Your task to perform on an android device: all mails in gmail Image 0: 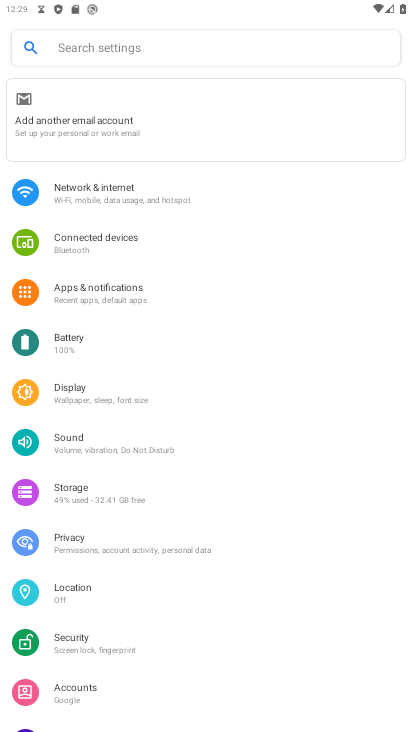
Step 0: press home button
Your task to perform on an android device: all mails in gmail Image 1: 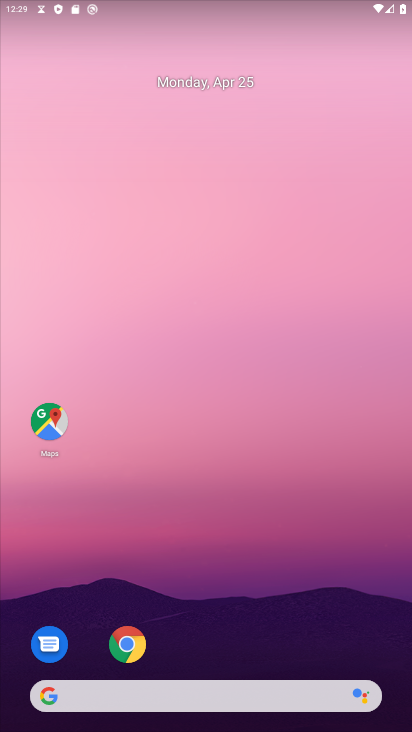
Step 1: drag from (341, 653) to (351, 20)
Your task to perform on an android device: all mails in gmail Image 2: 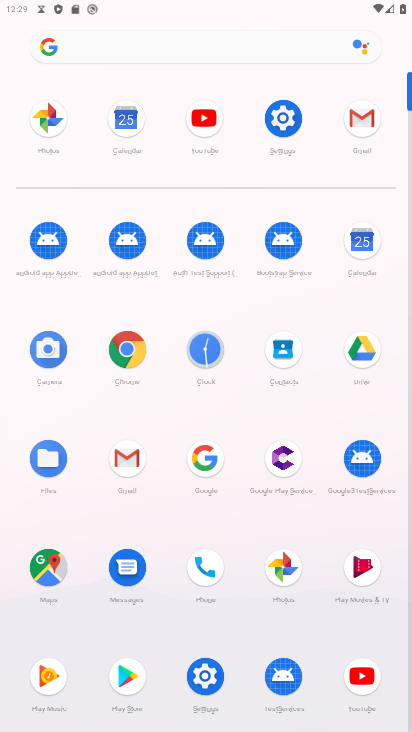
Step 2: click (364, 120)
Your task to perform on an android device: all mails in gmail Image 3: 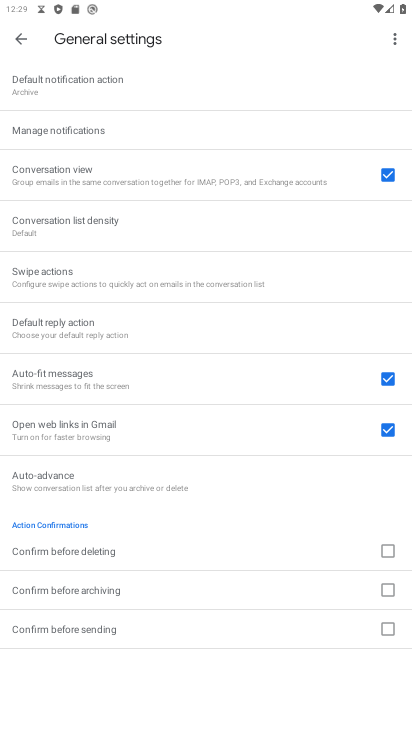
Step 3: click (18, 42)
Your task to perform on an android device: all mails in gmail Image 4: 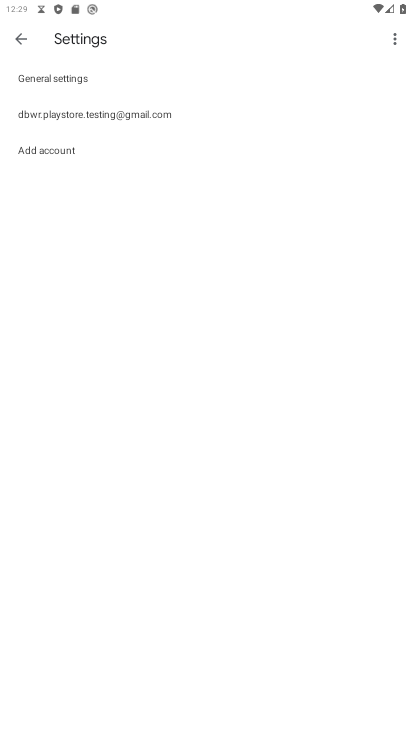
Step 4: click (18, 42)
Your task to perform on an android device: all mails in gmail Image 5: 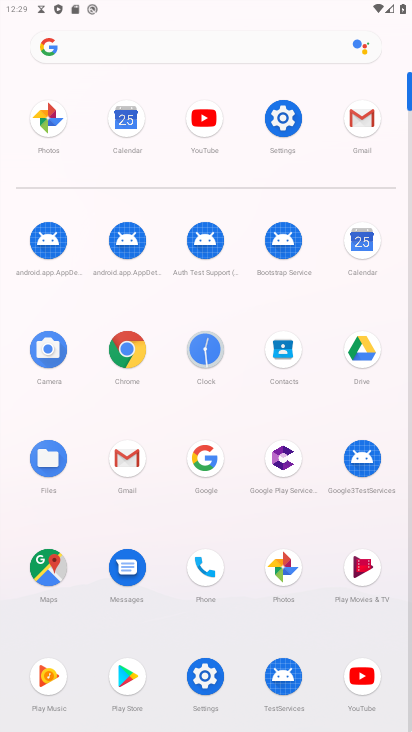
Step 5: click (364, 115)
Your task to perform on an android device: all mails in gmail Image 6: 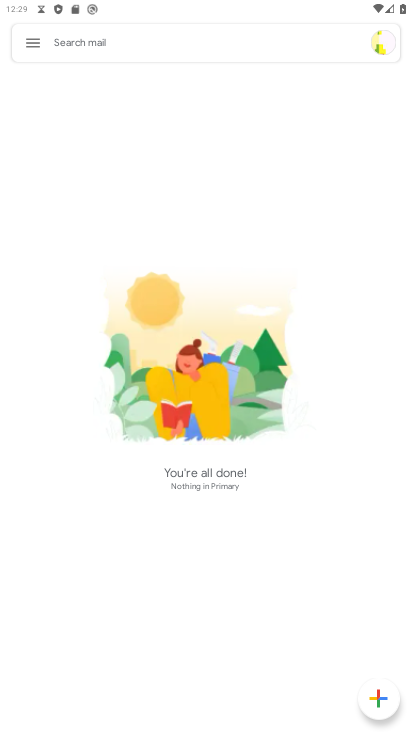
Step 6: click (34, 37)
Your task to perform on an android device: all mails in gmail Image 7: 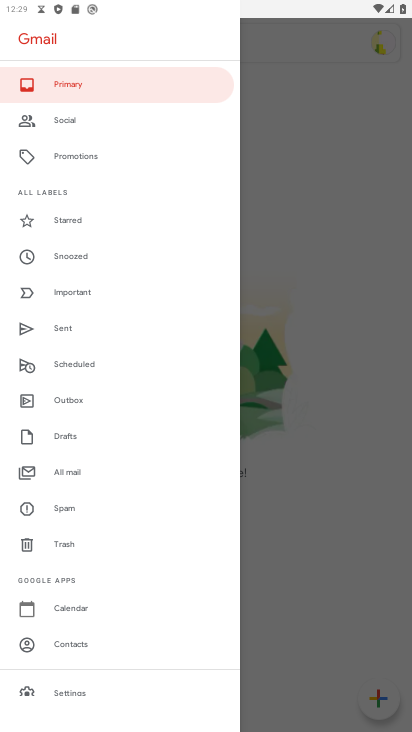
Step 7: click (74, 476)
Your task to perform on an android device: all mails in gmail Image 8: 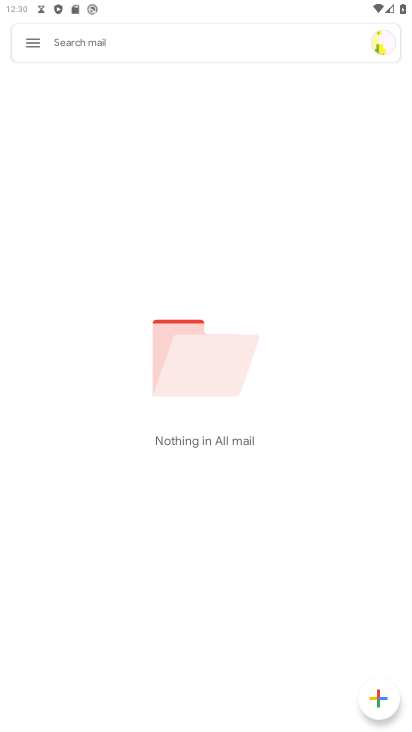
Step 8: task complete